Your task to perform on an android device: all mails in gmail Image 0: 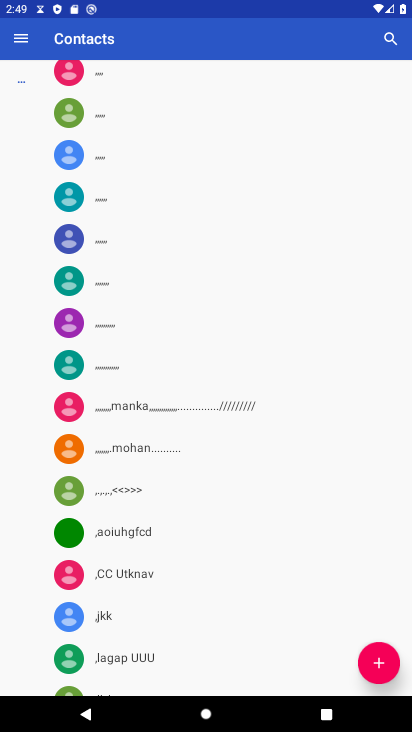
Step 0: press home button
Your task to perform on an android device: all mails in gmail Image 1: 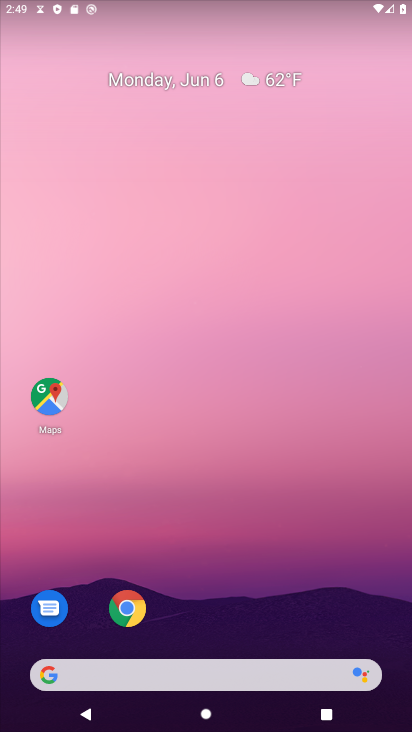
Step 1: drag from (213, 594) to (290, 52)
Your task to perform on an android device: all mails in gmail Image 2: 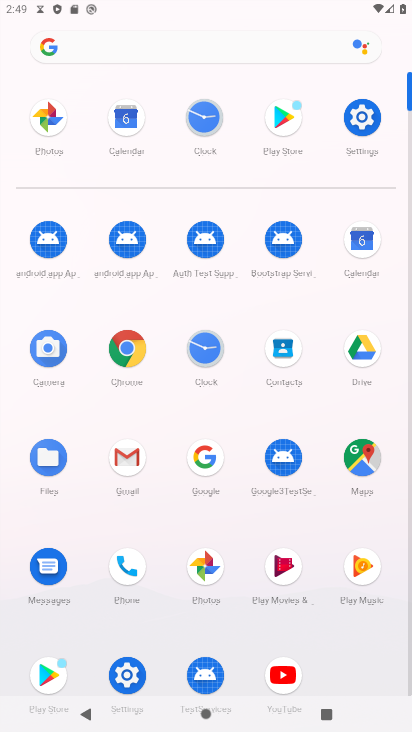
Step 2: click (134, 455)
Your task to perform on an android device: all mails in gmail Image 3: 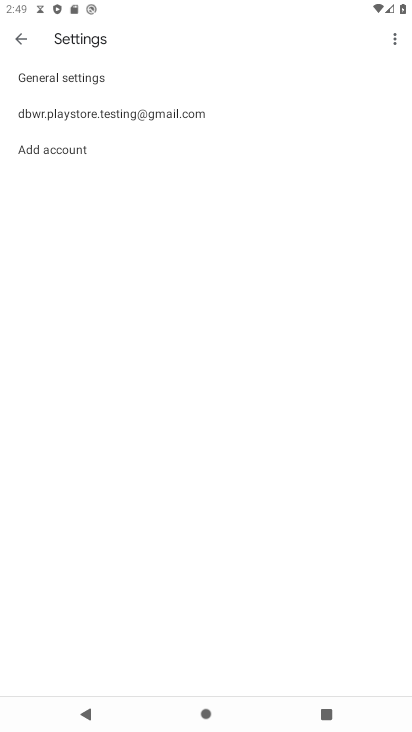
Step 3: click (23, 37)
Your task to perform on an android device: all mails in gmail Image 4: 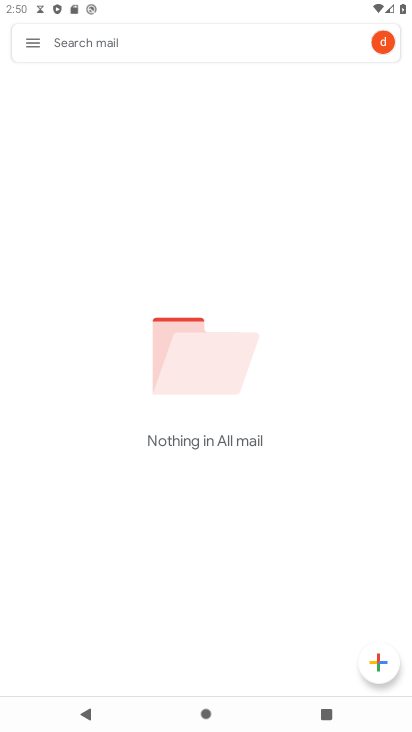
Step 4: task complete